Your task to perform on an android device: allow cookies in the chrome app Image 0: 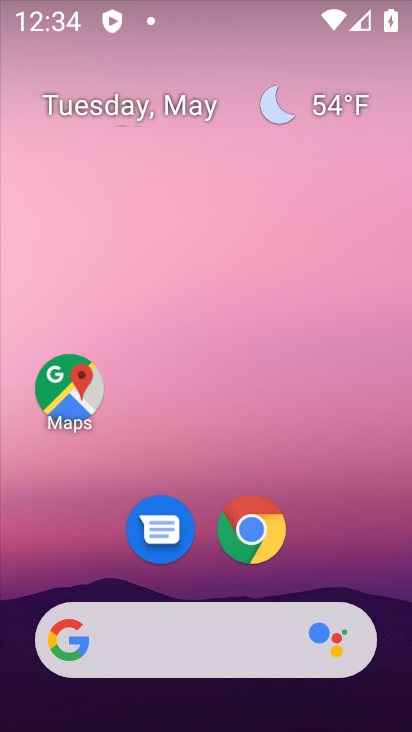
Step 0: drag from (332, 491) to (312, 193)
Your task to perform on an android device: allow cookies in the chrome app Image 1: 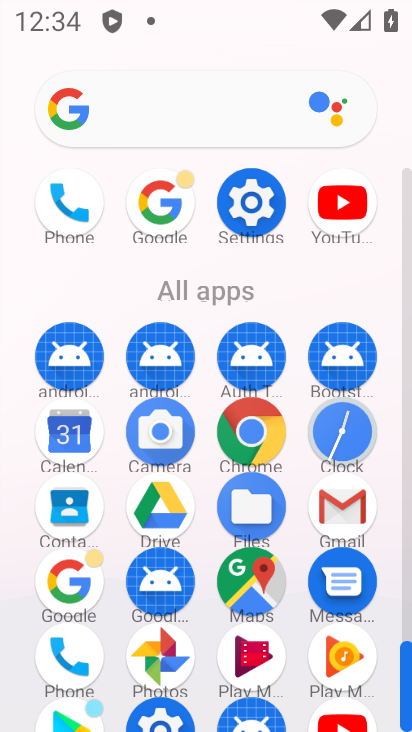
Step 1: click (257, 203)
Your task to perform on an android device: allow cookies in the chrome app Image 2: 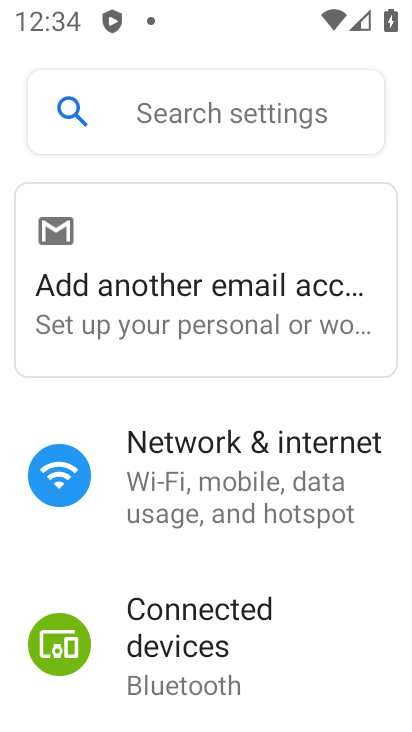
Step 2: press home button
Your task to perform on an android device: allow cookies in the chrome app Image 3: 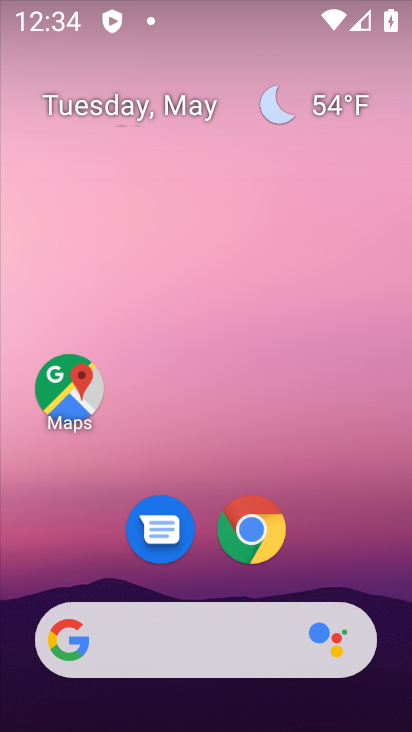
Step 3: click (246, 524)
Your task to perform on an android device: allow cookies in the chrome app Image 4: 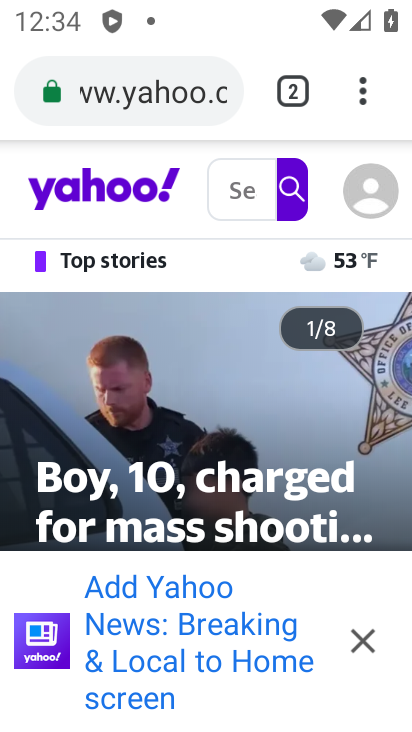
Step 4: click (354, 81)
Your task to perform on an android device: allow cookies in the chrome app Image 5: 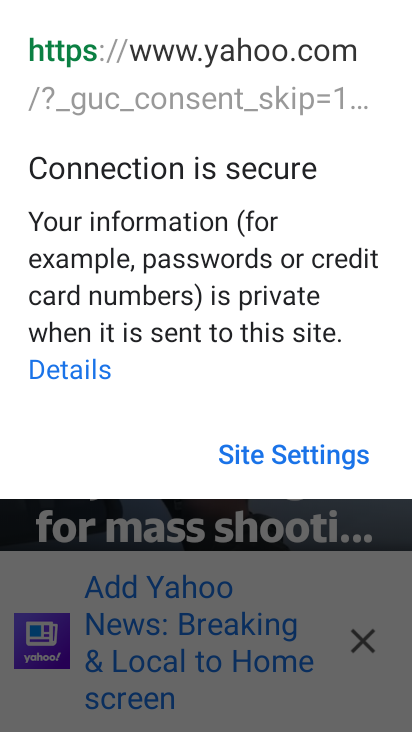
Step 5: click (362, 88)
Your task to perform on an android device: allow cookies in the chrome app Image 6: 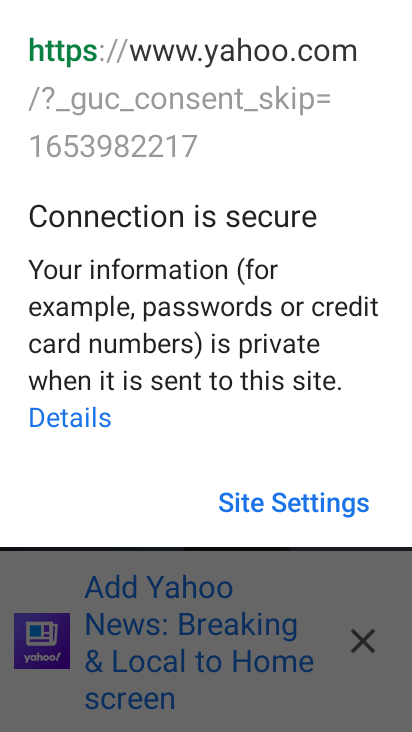
Step 6: click (356, 594)
Your task to perform on an android device: allow cookies in the chrome app Image 7: 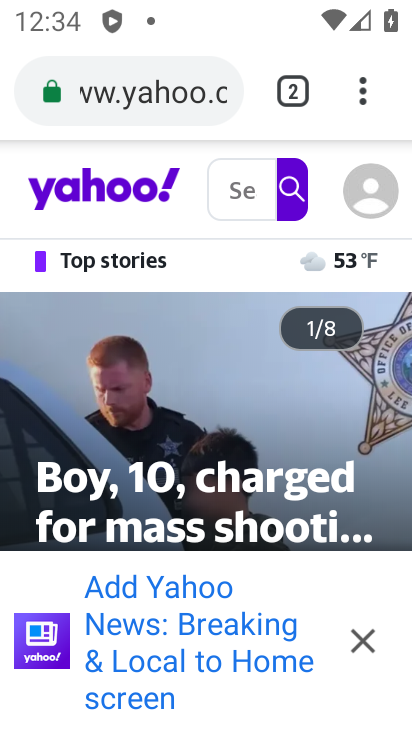
Step 7: click (378, 96)
Your task to perform on an android device: allow cookies in the chrome app Image 8: 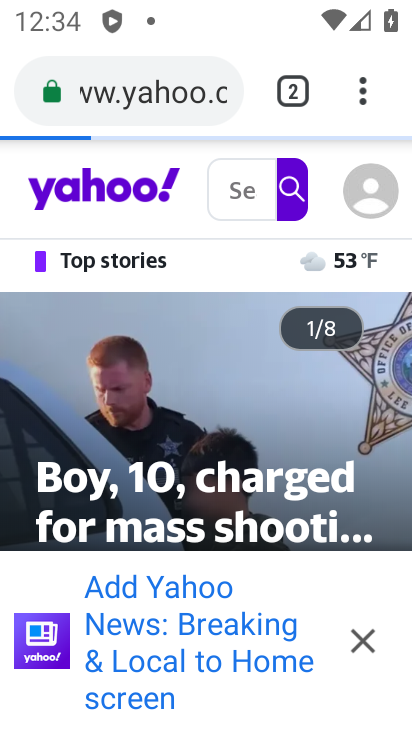
Step 8: click (368, 88)
Your task to perform on an android device: allow cookies in the chrome app Image 9: 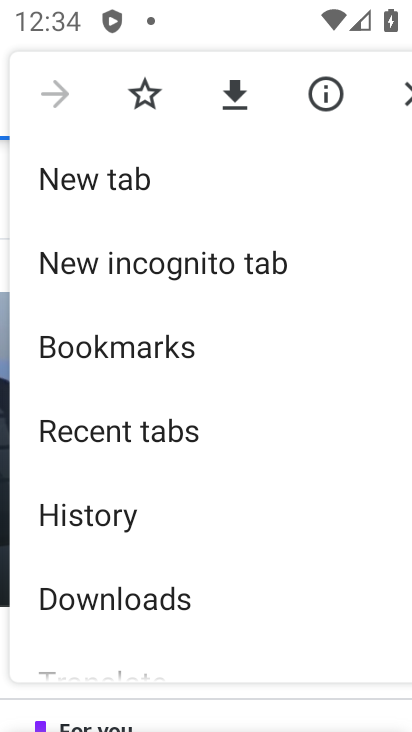
Step 9: drag from (123, 577) to (149, 287)
Your task to perform on an android device: allow cookies in the chrome app Image 10: 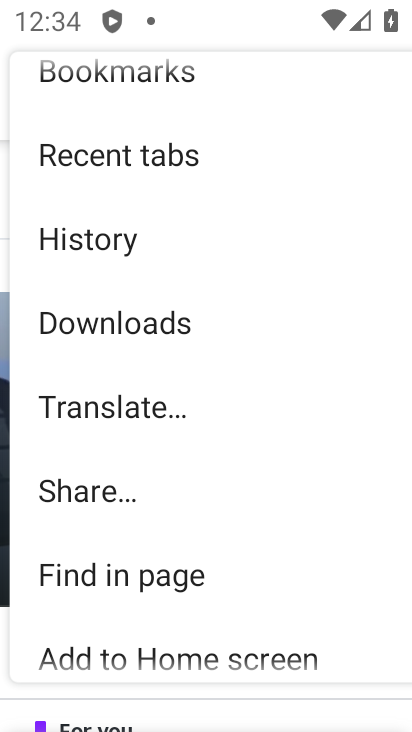
Step 10: drag from (175, 592) to (224, 262)
Your task to perform on an android device: allow cookies in the chrome app Image 11: 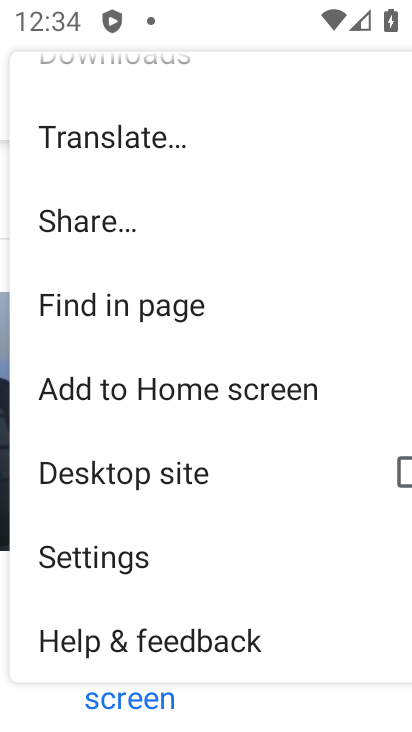
Step 11: click (144, 546)
Your task to perform on an android device: allow cookies in the chrome app Image 12: 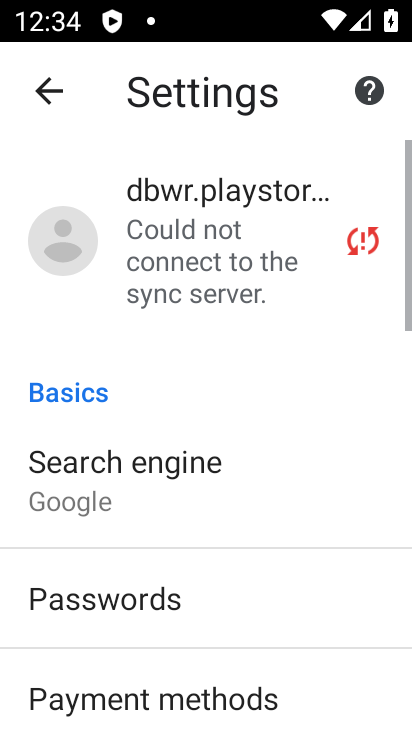
Step 12: drag from (217, 617) to (266, 263)
Your task to perform on an android device: allow cookies in the chrome app Image 13: 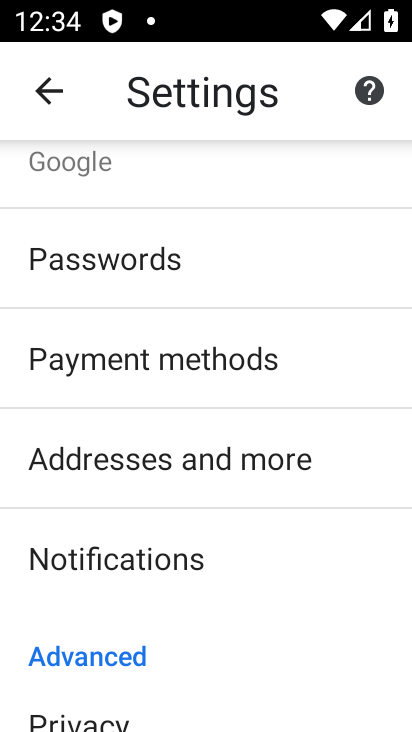
Step 13: drag from (207, 605) to (269, 259)
Your task to perform on an android device: allow cookies in the chrome app Image 14: 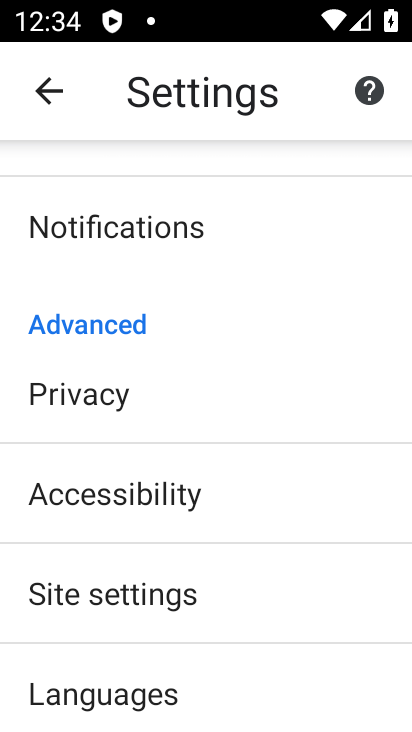
Step 14: drag from (185, 615) to (211, 440)
Your task to perform on an android device: allow cookies in the chrome app Image 15: 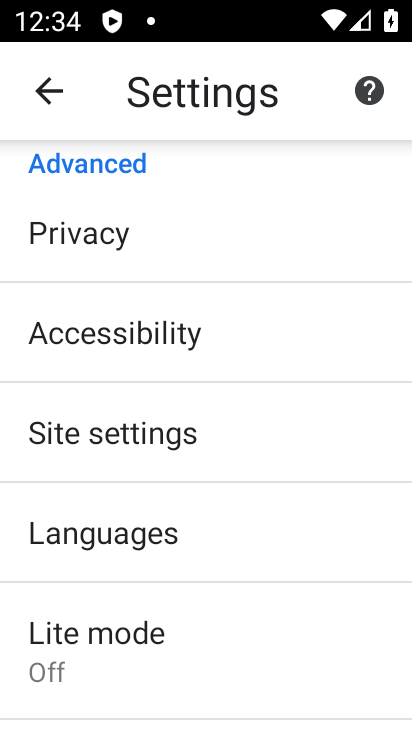
Step 15: click (136, 429)
Your task to perform on an android device: allow cookies in the chrome app Image 16: 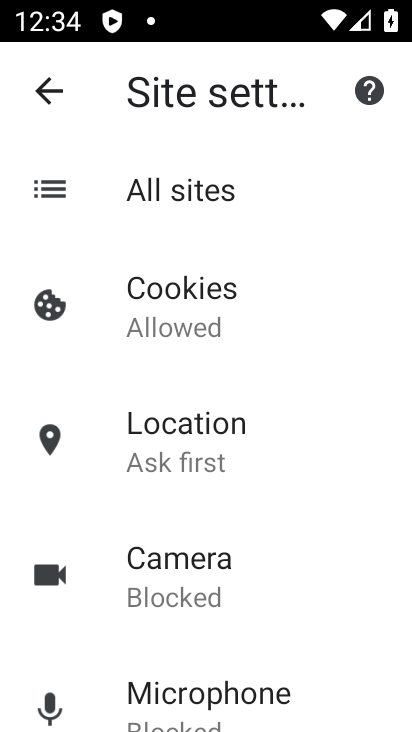
Step 16: click (176, 306)
Your task to perform on an android device: allow cookies in the chrome app Image 17: 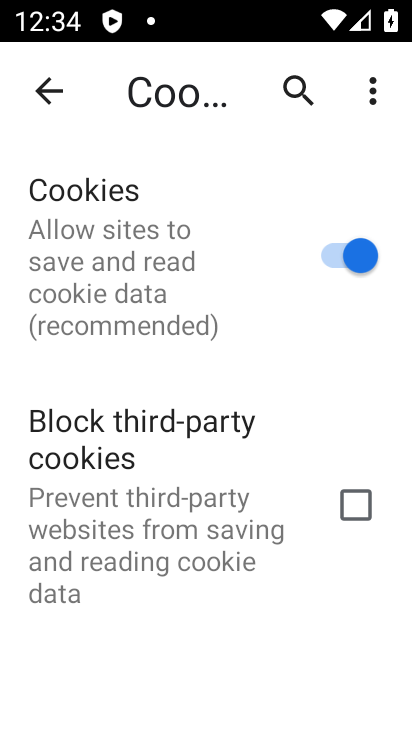
Step 17: click (313, 256)
Your task to perform on an android device: allow cookies in the chrome app Image 18: 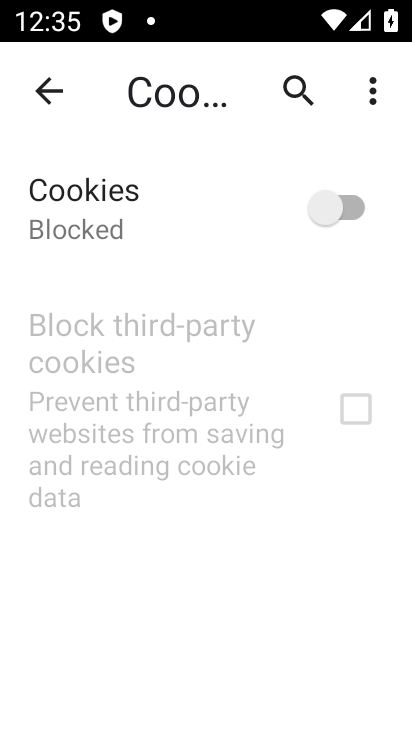
Step 18: click (322, 213)
Your task to perform on an android device: allow cookies in the chrome app Image 19: 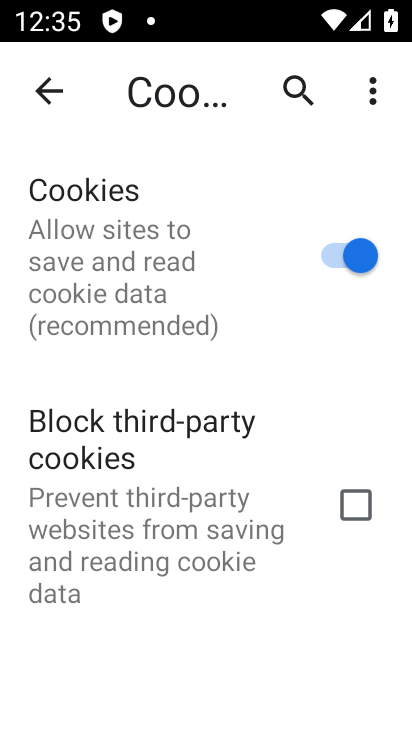
Step 19: task complete